Your task to perform on an android device: Go to battery settings Image 0: 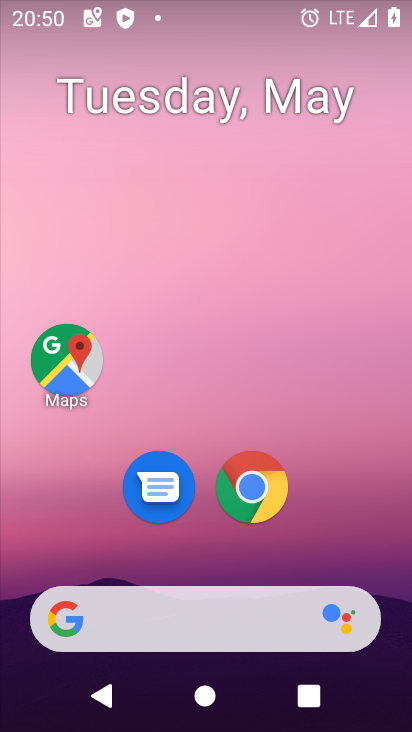
Step 0: drag from (352, 543) to (289, 18)
Your task to perform on an android device: Go to battery settings Image 1: 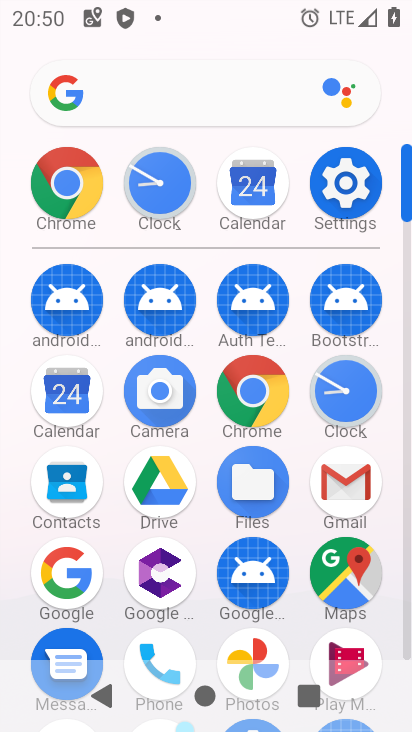
Step 1: click (343, 187)
Your task to perform on an android device: Go to battery settings Image 2: 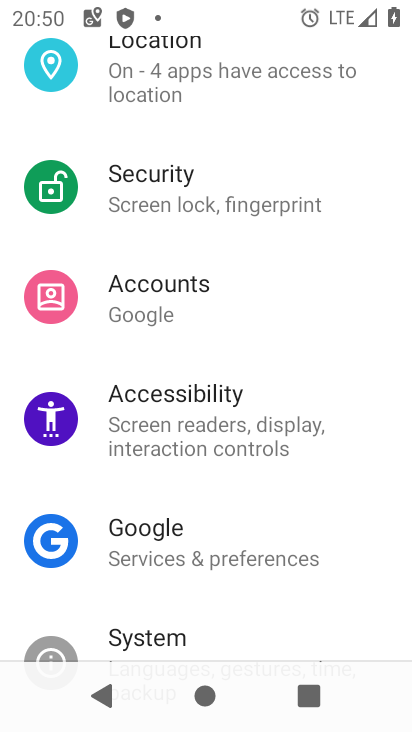
Step 2: drag from (242, 281) to (309, 691)
Your task to perform on an android device: Go to battery settings Image 3: 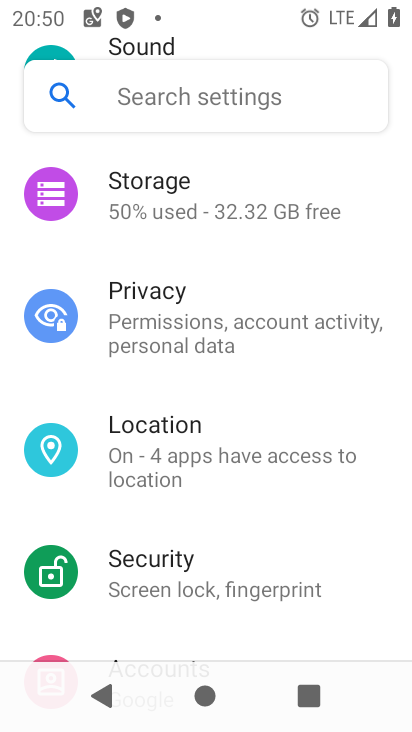
Step 3: drag from (266, 247) to (291, 567)
Your task to perform on an android device: Go to battery settings Image 4: 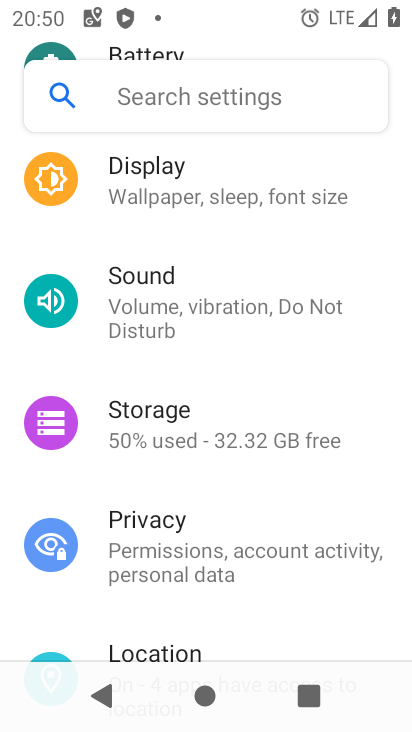
Step 4: drag from (211, 244) to (300, 715)
Your task to perform on an android device: Go to battery settings Image 5: 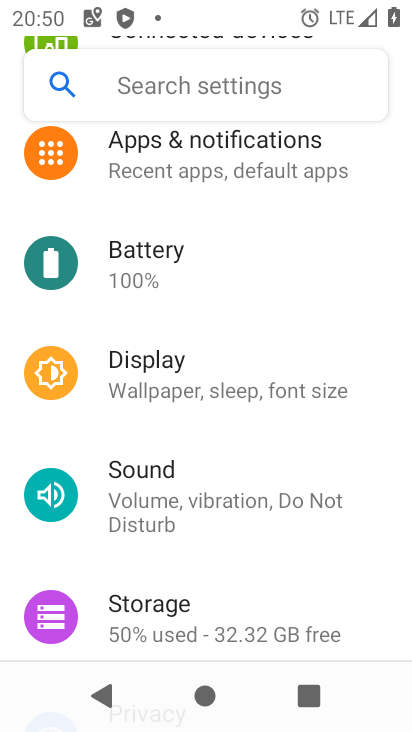
Step 5: click (143, 239)
Your task to perform on an android device: Go to battery settings Image 6: 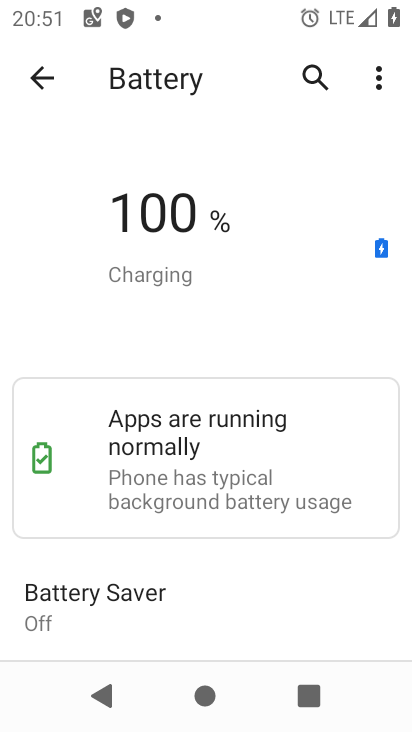
Step 6: task complete